Your task to perform on an android device: Open calendar and show me the first week of next month Image 0: 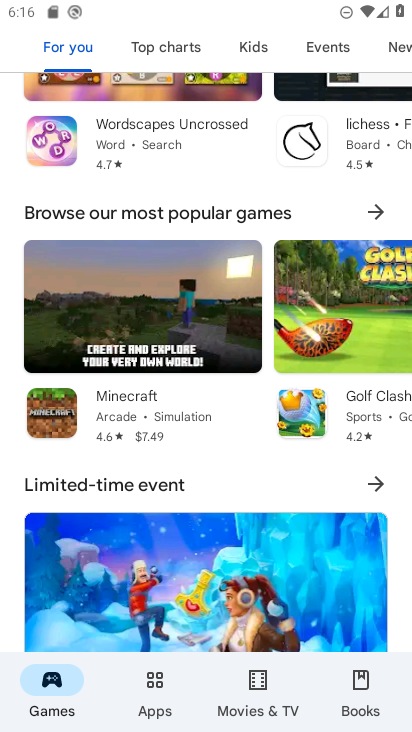
Step 0: press home button
Your task to perform on an android device: Open calendar and show me the first week of next month Image 1: 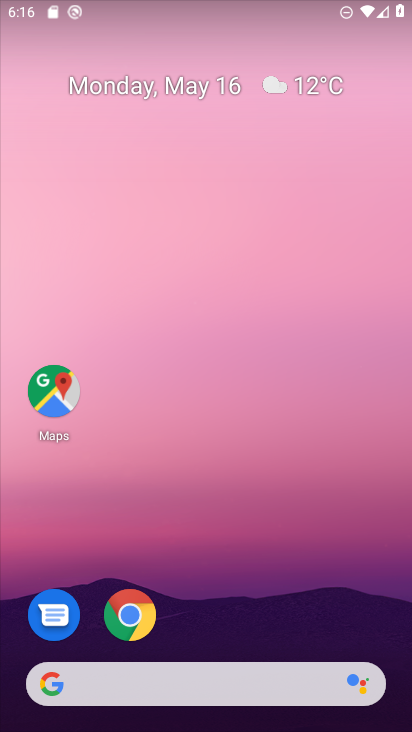
Step 1: drag from (219, 613) to (303, 116)
Your task to perform on an android device: Open calendar and show me the first week of next month Image 2: 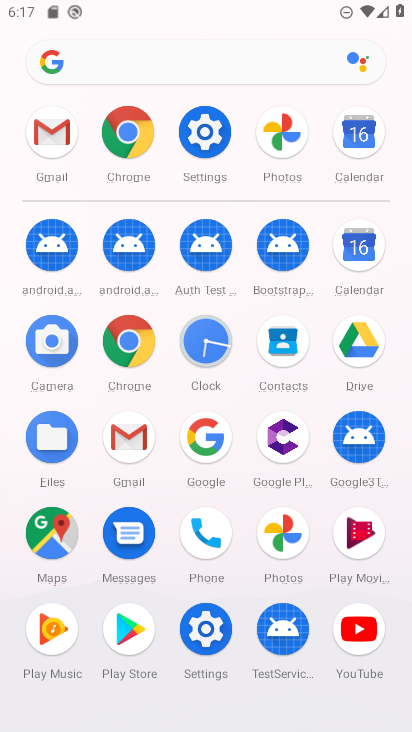
Step 2: click (372, 284)
Your task to perform on an android device: Open calendar and show me the first week of next month Image 3: 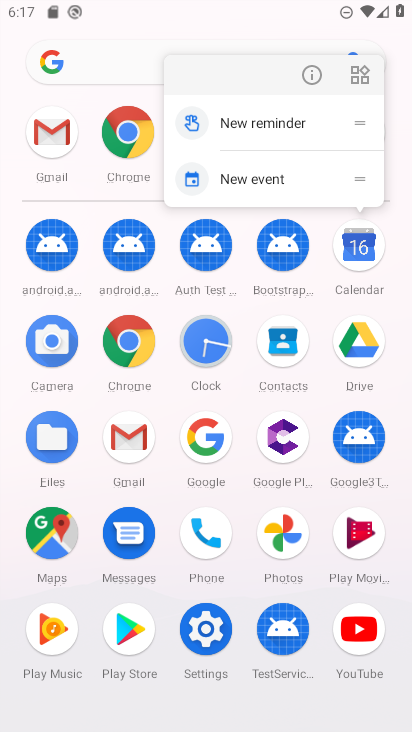
Step 3: click (356, 266)
Your task to perform on an android device: Open calendar and show me the first week of next month Image 4: 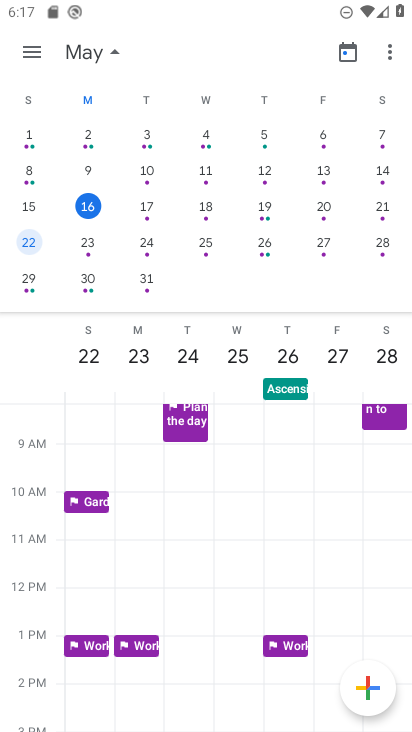
Step 4: drag from (272, 159) to (50, 157)
Your task to perform on an android device: Open calendar and show me the first week of next month Image 5: 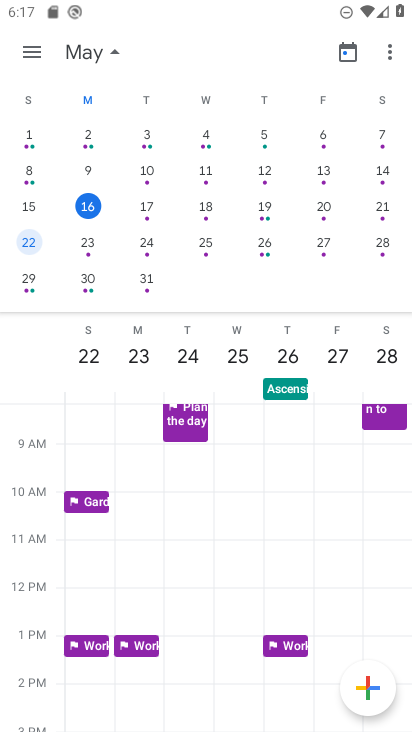
Step 5: drag from (304, 201) to (20, 207)
Your task to perform on an android device: Open calendar and show me the first week of next month Image 6: 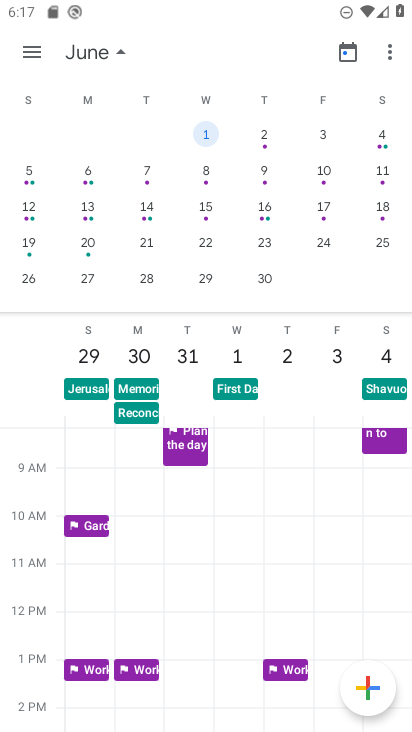
Step 6: click (29, 179)
Your task to perform on an android device: Open calendar and show me the first week of next month Image 7: 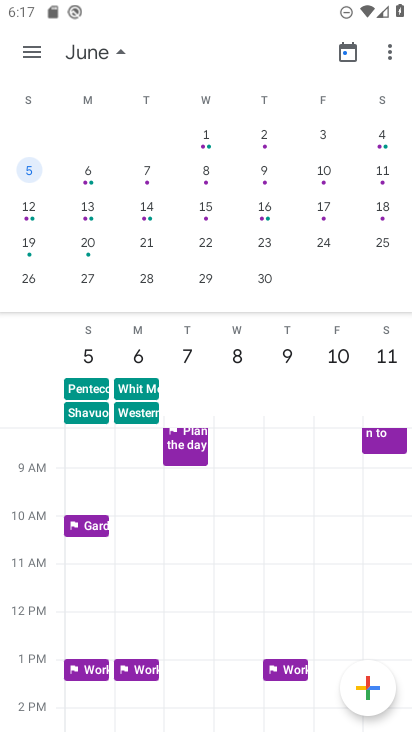
Step 7: task complete